Your task to perform on an android device: Do I have any events tomorrow? Image 0: 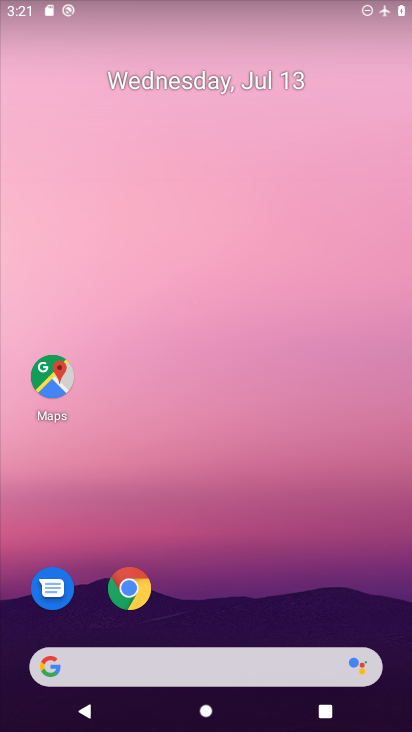
Step 0: drag from (190, 618) to (149, 121)
Your task to perform on an android device: Do I have any events tomorrow? Image 1: 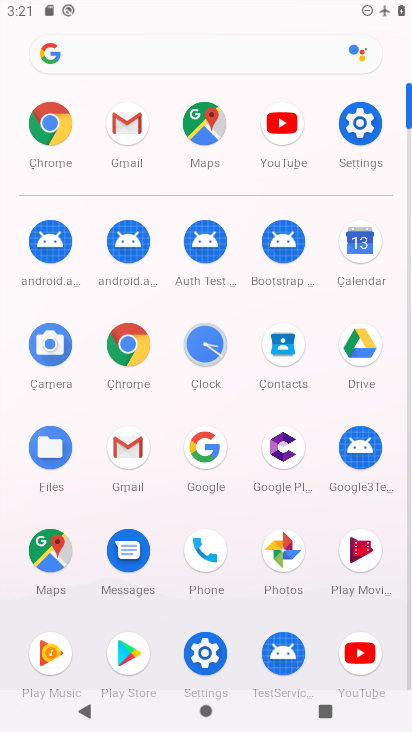
Step 1: click (361, 243)
Your task to perform on an android device: Do I have any events tomorrow? Image 2: 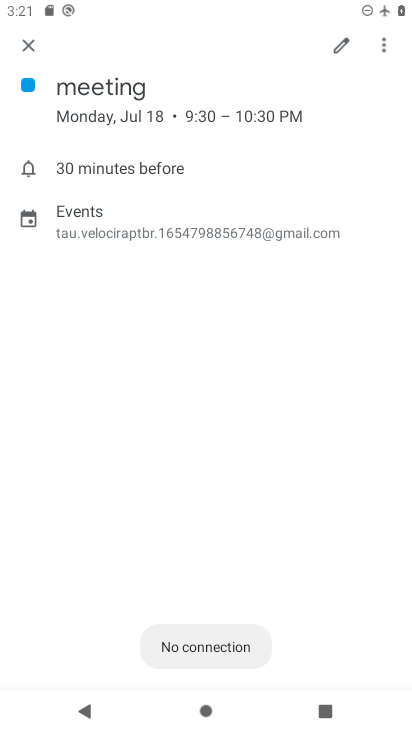
Step 2: click (30, 41)
Your task to perform on an android device: Do I have any events tomorrow? Image 3: 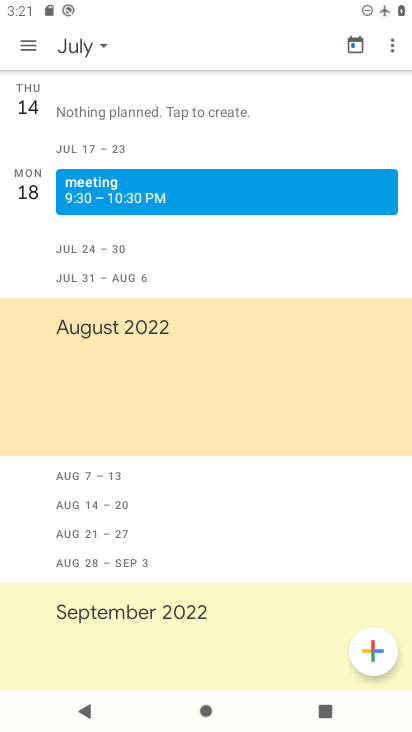
Step 3: click (30, 41)
Your task to perform on an android device: Do I have any events tomorrow? Image 4: 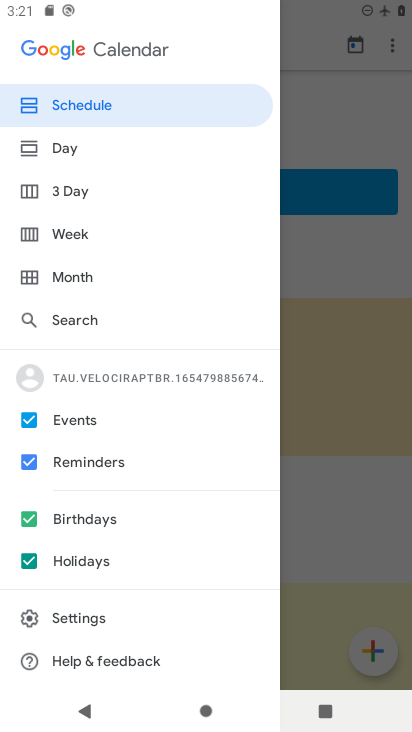
Step 4: click (73, 233)
Your task to perform on an android device: Do I have any events tomorrow? Image 5: 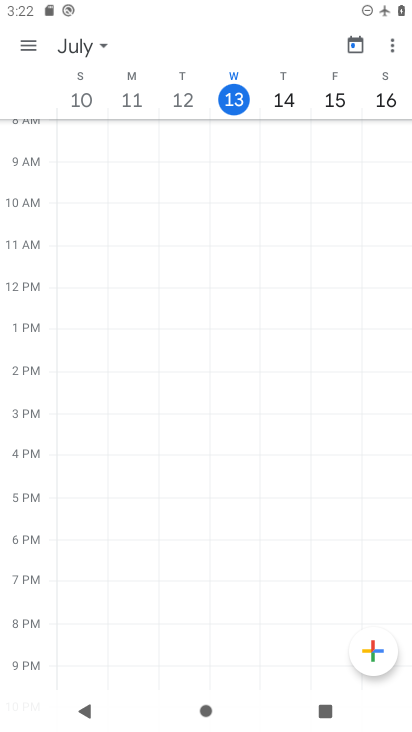
Step 5: click (285, 92)
Your task to perform on an android device: Do I have any events tomorrow? Image 6: 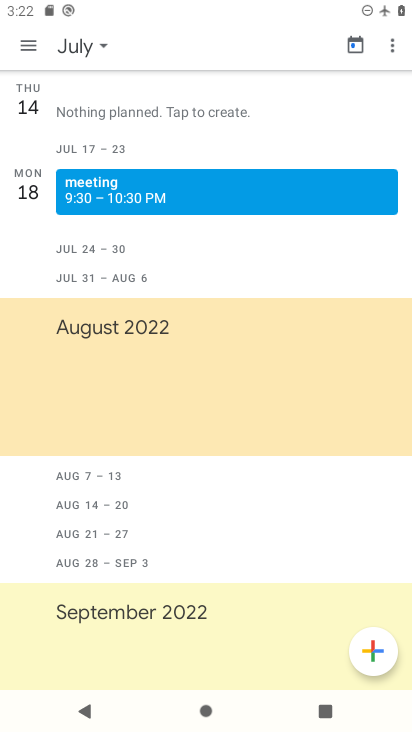
Step 6: task complete